Your task to perform on an android device: make emails show in primary in the gmail app Image 0: 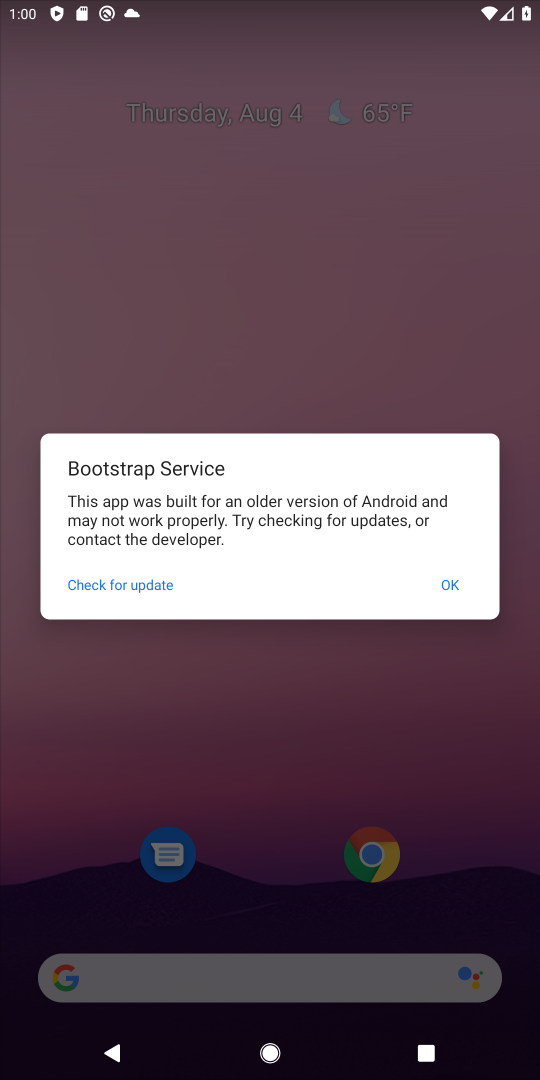
Step 0: task complete